Your task to perform on an android device: turn pop-ups off in chrome Image 0: 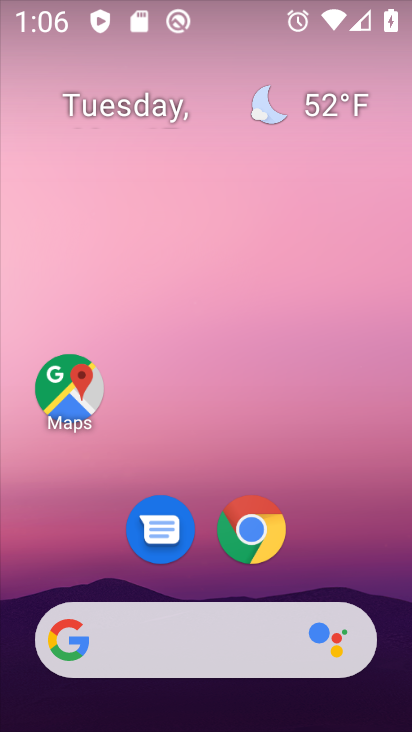
Step 0: click (269, 527)
Your task to perform on an android device: turn pop-ups off in chrome Image 1: 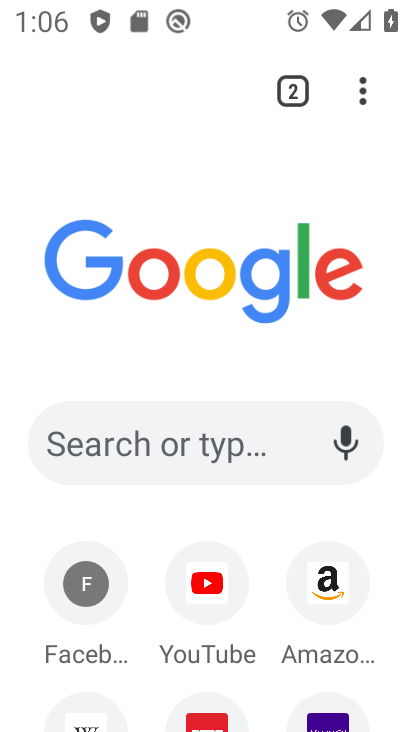
Step 1: click (362, 94)
Your task to perform on an android device: turn pop-ups off in chrome Image 2: 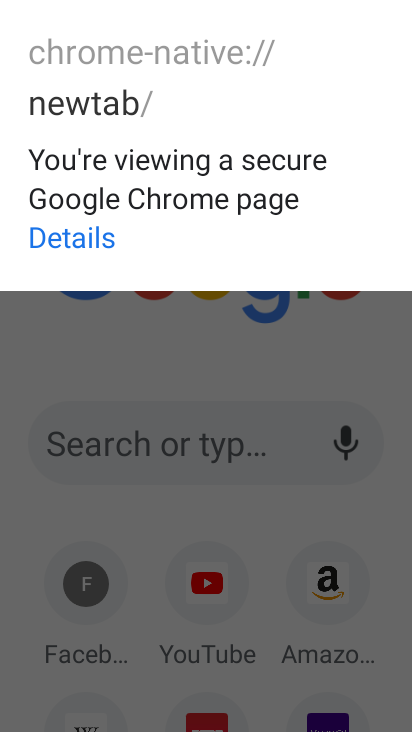
Step 2: click (201, 406)
Your task to perform on an android device: turn pop-ups off in chrome Image 3: 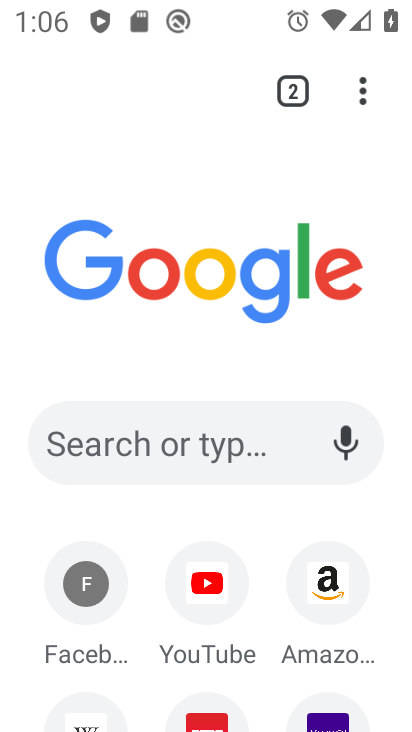
Step 3: drag from (358, 81) to (143, 567)
Your task to perform on an android device: turn pop-ups off in chrome Image 4: 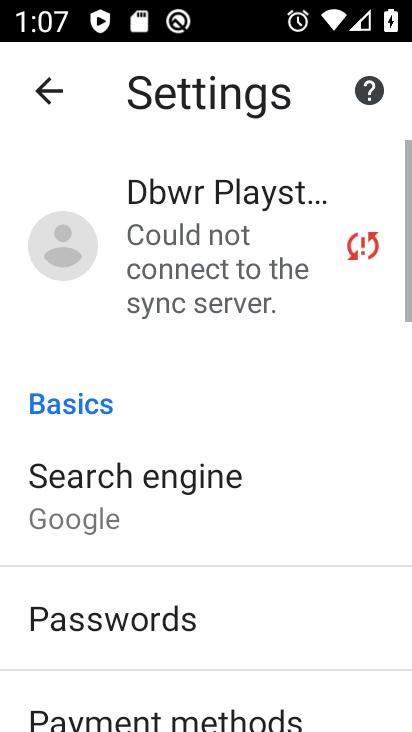
Step 4: drag from (159, 626) to (284, 68)
Your task to perform on an android device: turn pop-ups off in chrome Image 5: 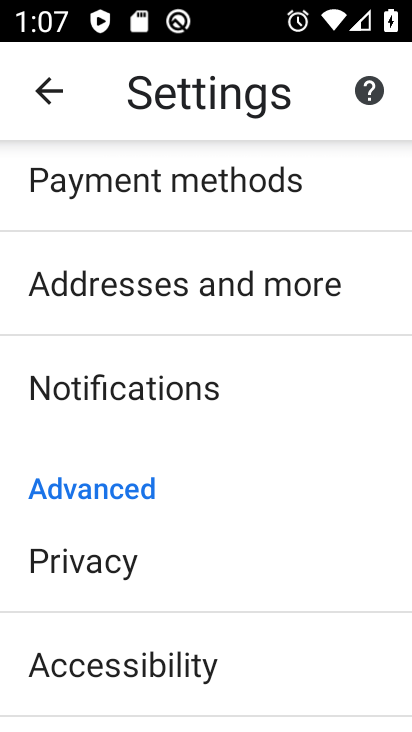
Step 5: drag from (187, 601) to (295, 38)
Your task to perform on an android device: turn pop-ups off in chrome Image 6: 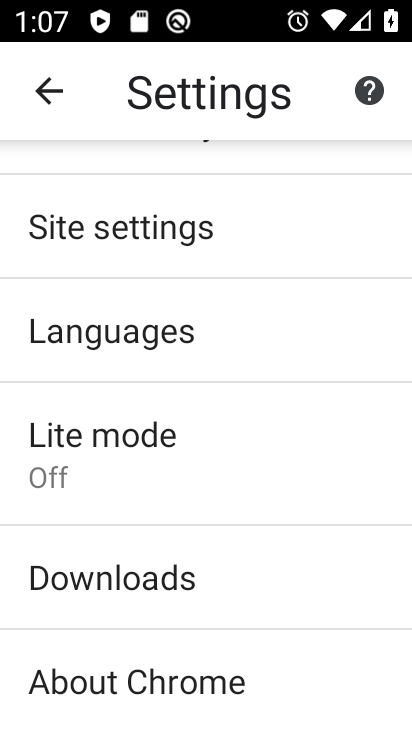
Step 6: click (139, 244)
Your task to perform on an android device: turn pop-ups off in chrome Image 7: 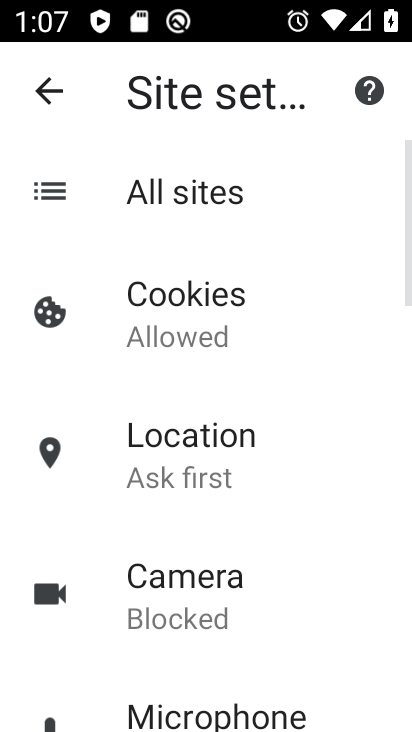
Step 7: drag from (232, 594) to (270, 32)
Your task to perform on an android device: turn pop-ups off in chrome Image 8: 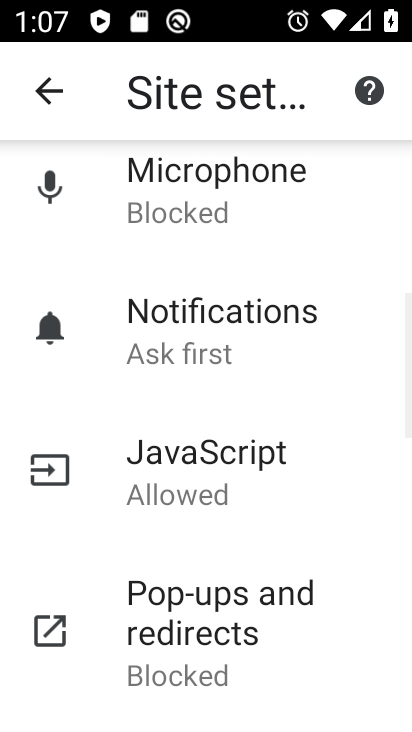
Step 8: click (191, 573)
Your task to perform on an android device: turn pop-ups off in chrome Image 9: 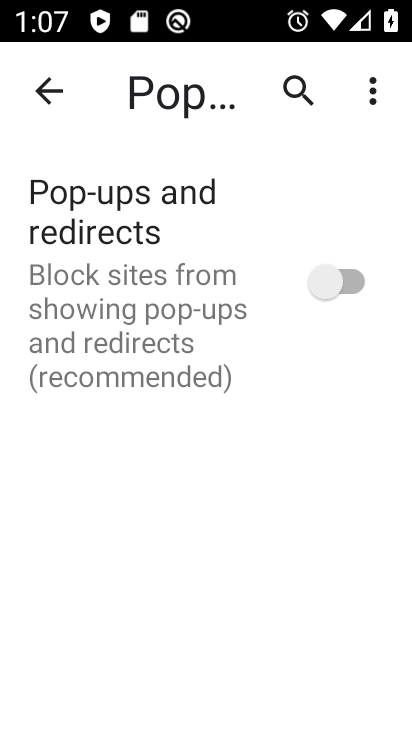
Step 9: task complete